Your task to perform on an android device: Search for a 36" x 48" whiteboard on Home Depot Image 0: 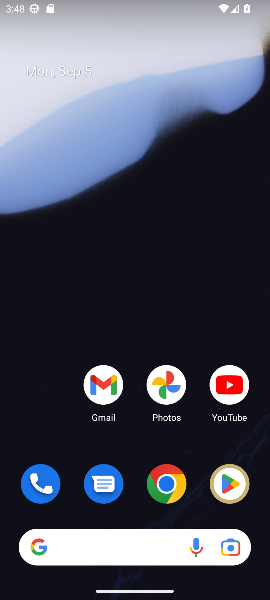
Step 0: click (170, 484)
Your task to perform on an android device: Search for a 36" x 48" whiteboard on Home Depot Image 1: 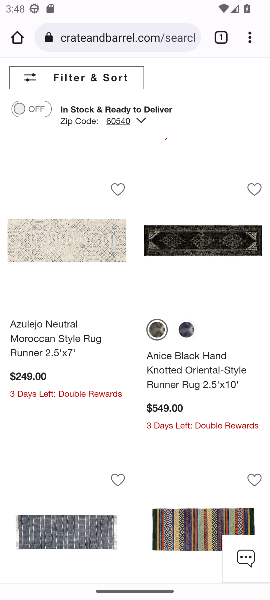
Step 1: click (152, 39)
Your task to perform on an android device: Search for a 36" x 48" whiteboard on Home Depot Image 2: 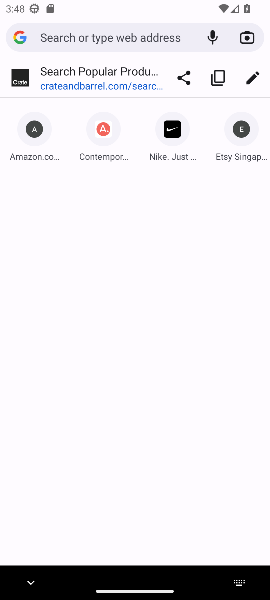
Step 2: type "Home Depot"
Your task to perform on an android device: Search for a 36" x 48" whiteboard on Home Depot Image 3: 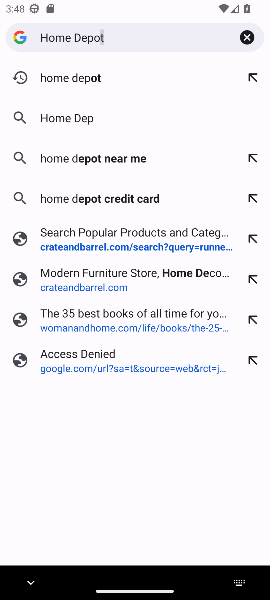
Step 3: press enter
Your task to perform on an android device: Search for a 36" x 48" whiteboard on Home Depot Image 4: 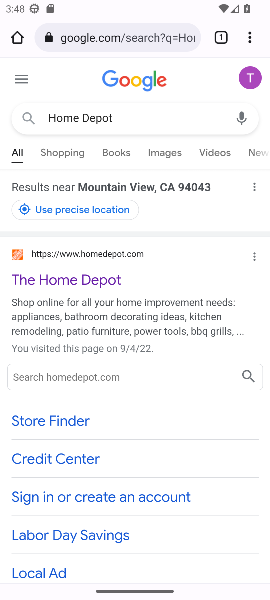
Step 4: click (102, 281)
Your task to perform on an android device: Search for a 36" x 48" whiteboard on Home Depot Image 5: 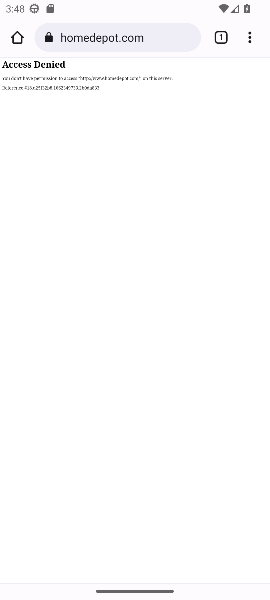
Step 5: task complete